Your task to perform on an android device: turn off improve location accuracy Image 0: 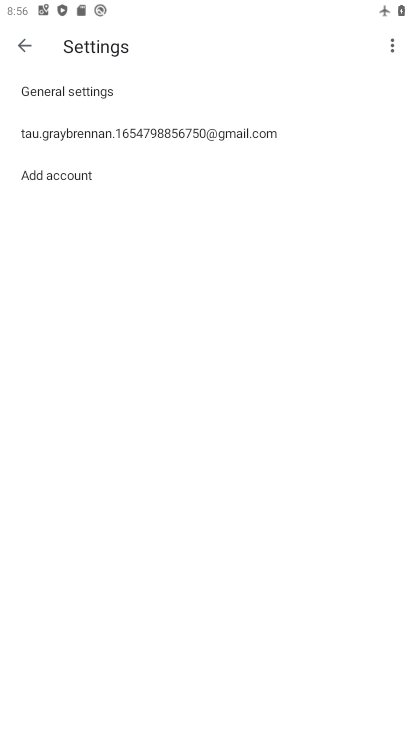
Step 0: click (308, 638)
Your task to perform on an android device: turn off improve location accuracy Image 1: 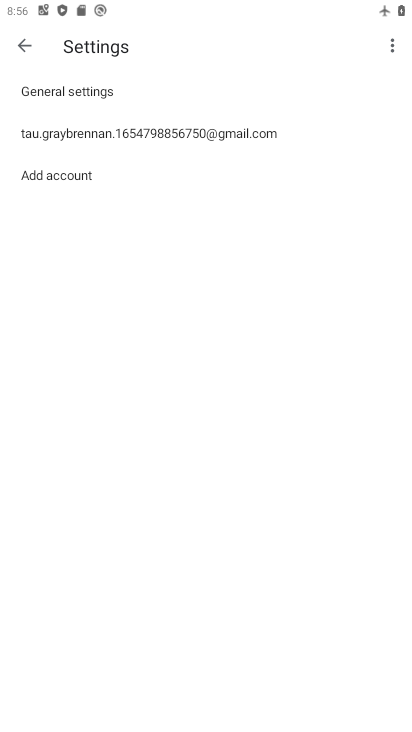
Step 1: press home button
Your task to perform on an android device: turn off improve location accuracy Image 2: 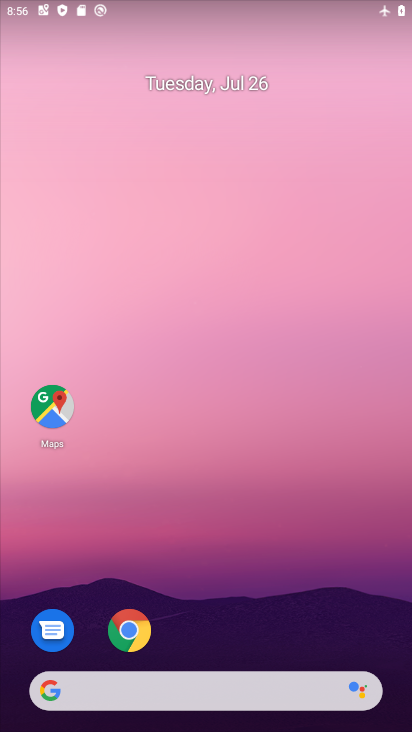
Step 2: drag from (257, 633) to (284, 30)
Your task to perform on an android device: turn off improve location accuracy Image 3: 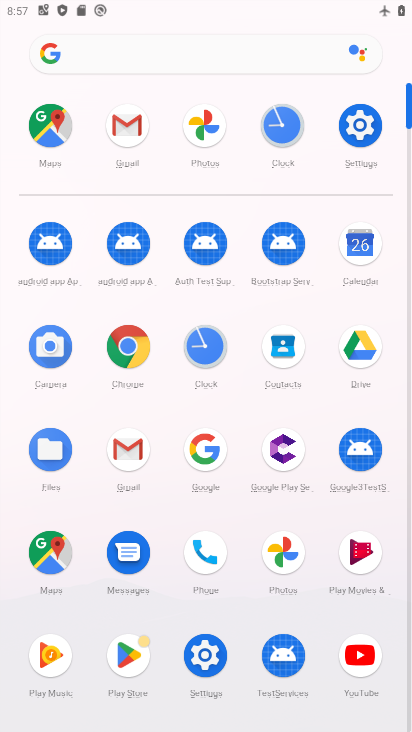
Step 3: click (349, 114)
Your task to perform on an android device: turn off improve location accuracy Image 4: 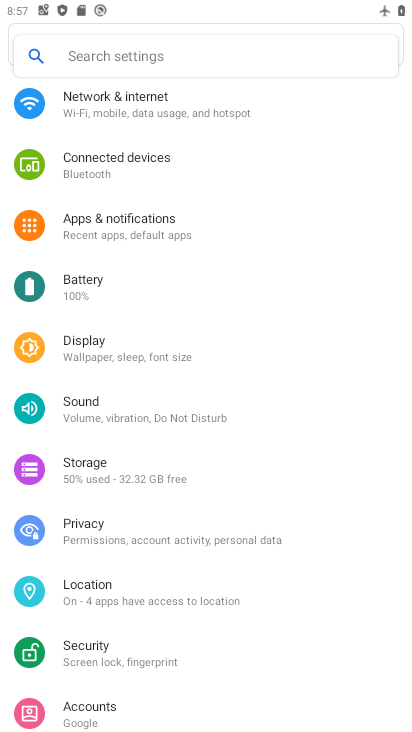
Step 4: click (154, 569)
Your task to perform on an android device: turn off improve location accuracy Image 5: 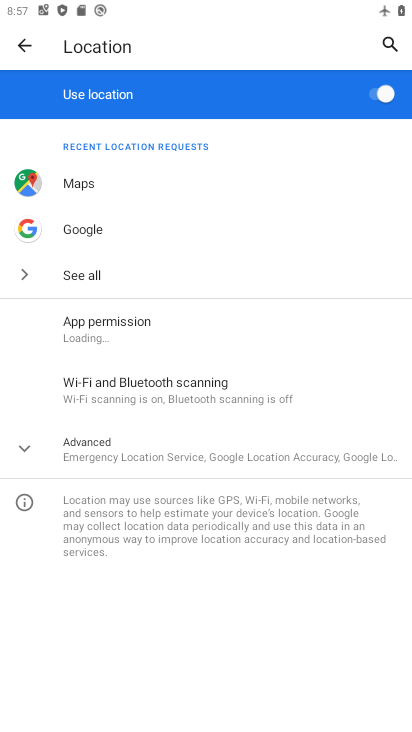
Step 5: task complete